Your task to perform on an android device: turn on priority inbox in the gmail app Image 0: 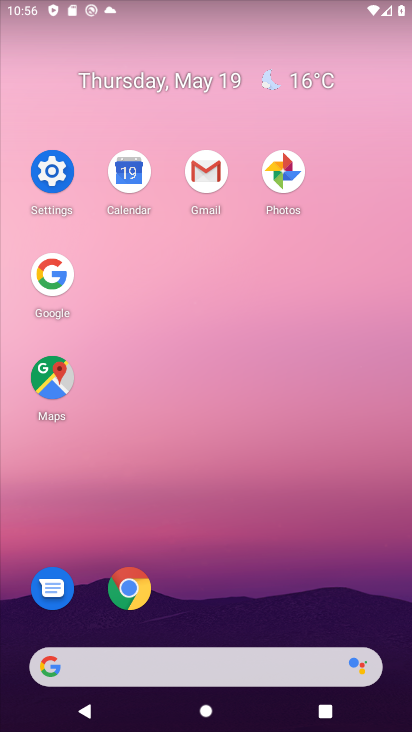
Step 0: click (213, 164)
Your task to perform on an android device: turn on priority inbox in the gmail app Image 1: 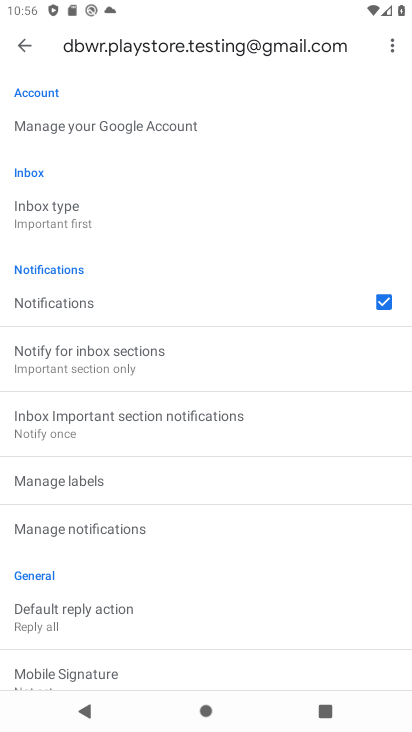
Step 1: click (158, 218)
Your task to perform on an android device: turn on priority inbox in the gmail app Image 2: 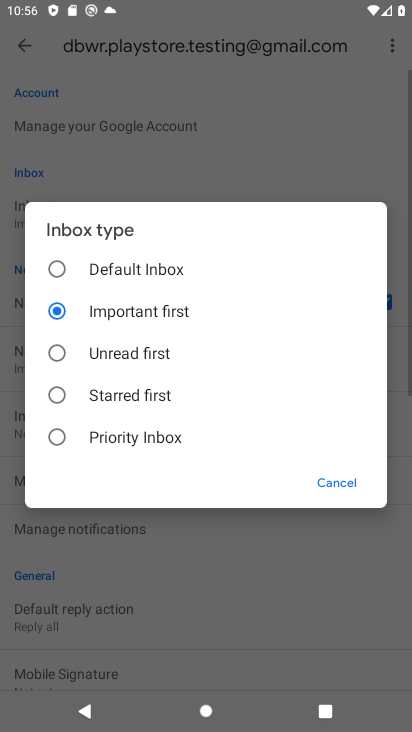
Step 2: click (151, 437)
Your task to perform on an android device: turn on priority inbox in the gmail app Image 3: 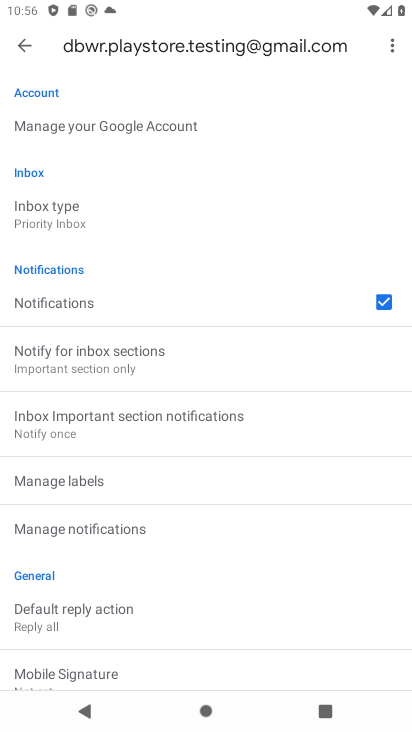
Step 3: task complete